Your task to perform on an android device: change the clock display to show seconds Image 0: 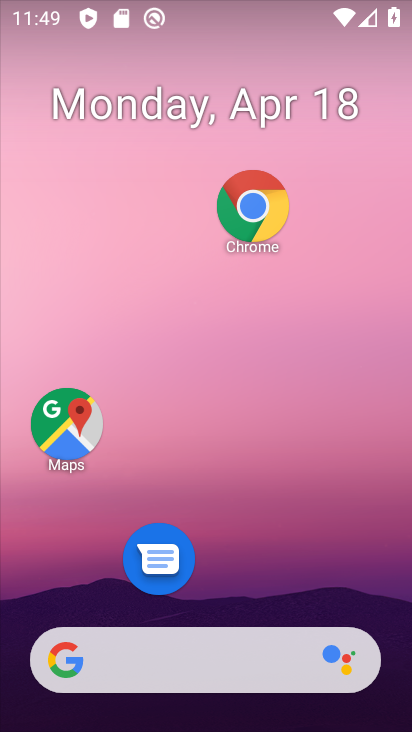
Step 0: drag from (234, 583) to (248, 96)
Your task to perform on an android device: change the clock display to show seconds Image 1: 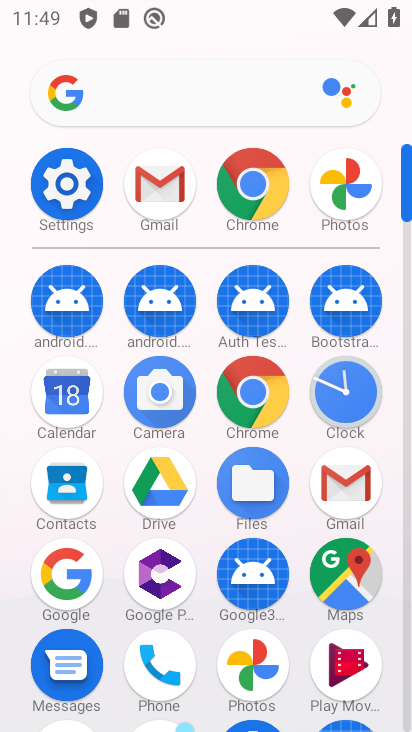
Step 1: click (334, 413)
Your task to perform on an android device: change the clock display to show seconds Image 2: 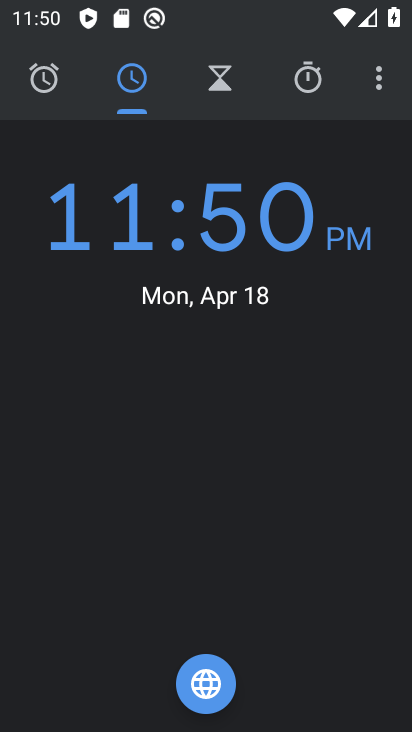
Step 2: click (368, 67)
Your task to perform on an android device: change the clock display to show seconds Image 3: 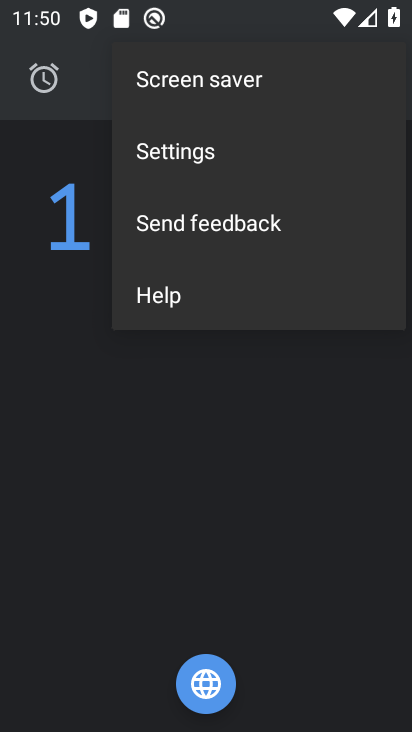
Step 3: click (219, 154)
Your task to perform on an android device: change the clock display to show seconds Image 4: 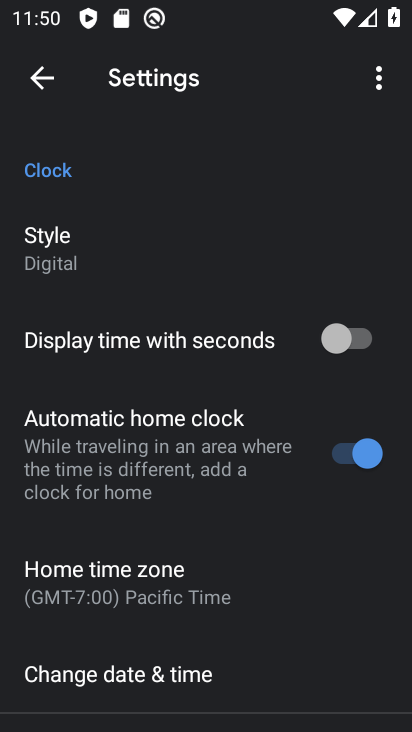
Step 4: click (368, 347)
Your task to perform on an android device: change the clock display to show seconds Image 5: 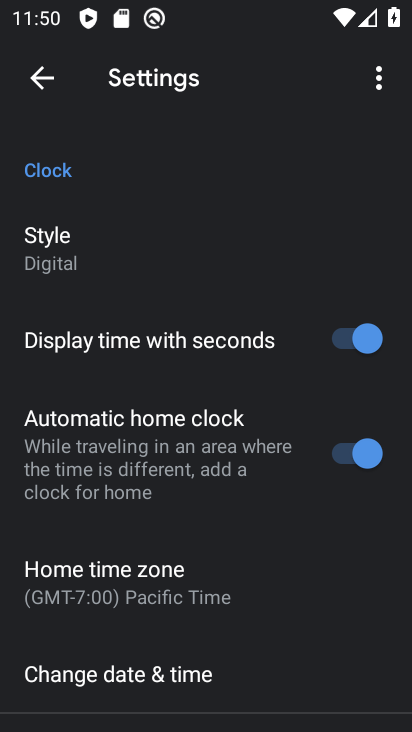
Step 5: task complete